Your task to perform on an android device: Go to sound settings Image 0: 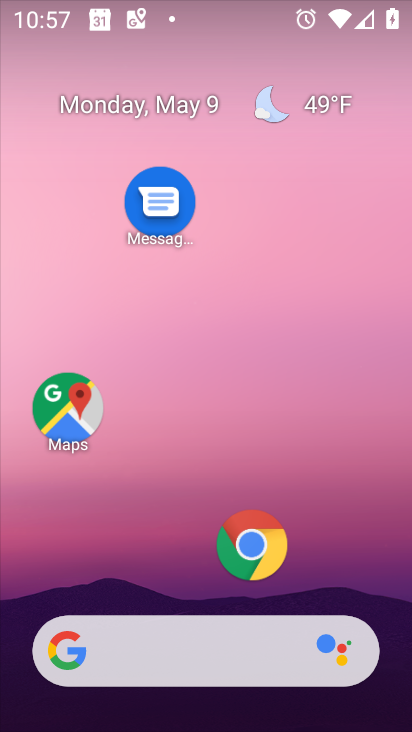
Step 0: drag from (341, 529) to (346, 70)
Your task to perform on an android device: Go to sound settings Image 1: 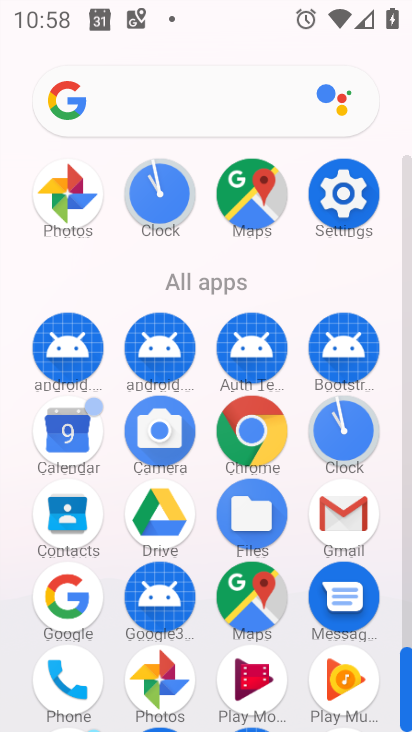
Step 1: click (349, 189)
Your task to perform on an android device: Go to sound settings Image 2: 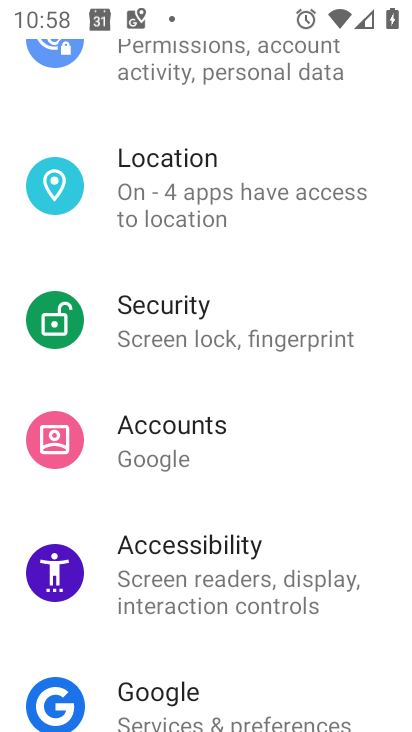
Step 2: drag from (272, 346) to (332, 510)
Your task to perform on an android device: Go to sound settings Image 3: 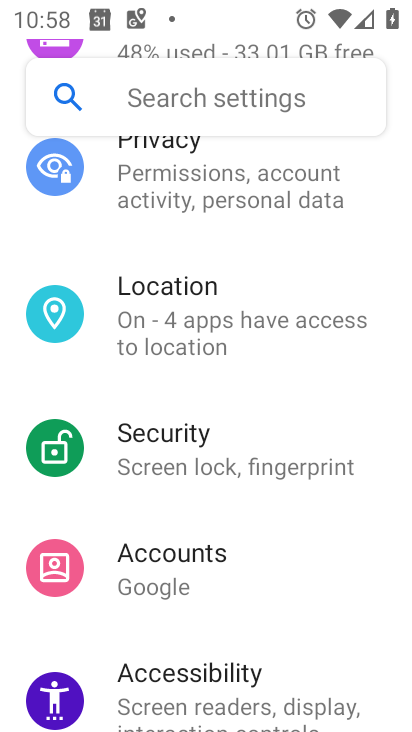
Step 3: drag from (288, 398) to (324, 514)
Your task to perform on an android device: Go to sound settings Image 4: 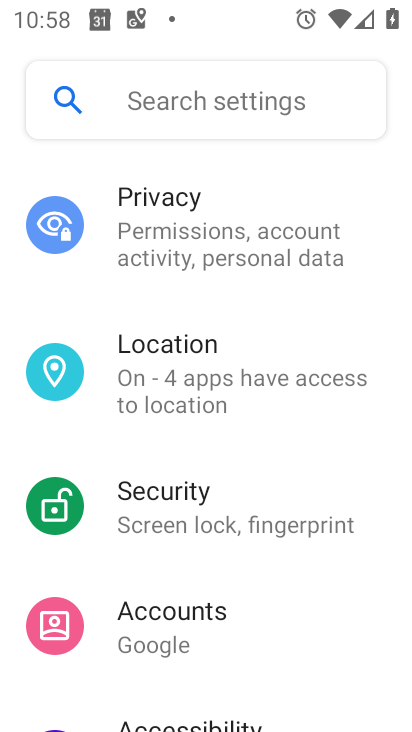
Step 4: drag from (249, 327) to (284, 469)
Your task to perform on an android device: Go to sound settings Image 5: 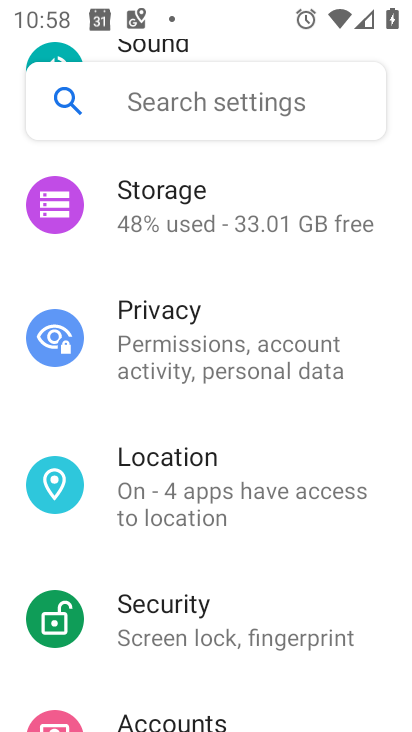
Step 5: drag from (231, 355) to (235, 473)
Your task to perform on an android device: Go to sound settings Image 6: 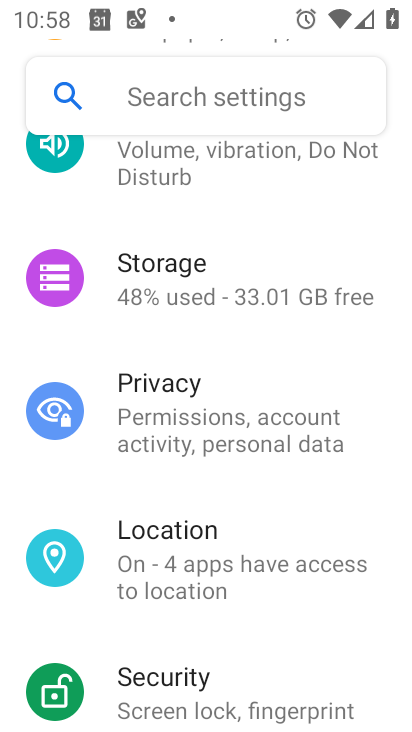
Step 6: drag from (227, 281) to (249, 408)
Your task to perform on an android device: Go to sound settings Image 7: 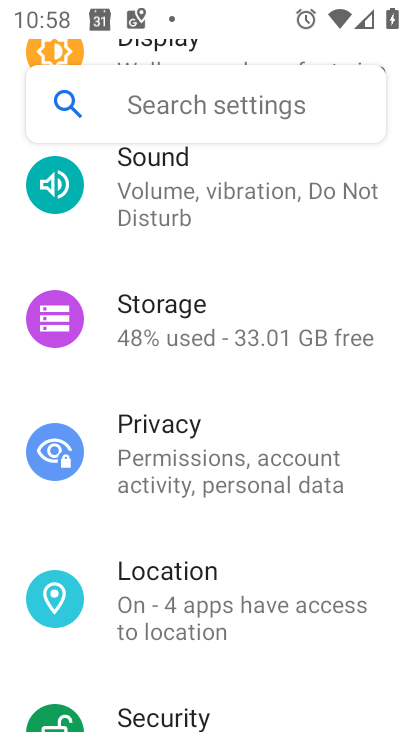
Step 7: click (217, 200)
Your task to perform on an android device: Go to sound settings Image 8: 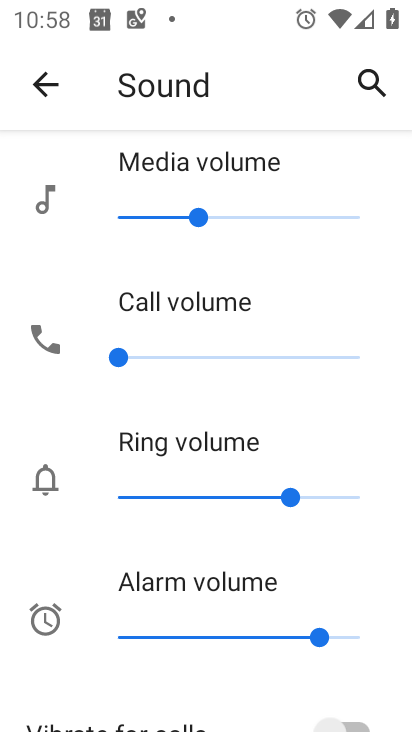
Step 8: task complete